Your task to perform on an android device: toggle notification dots Image 0: 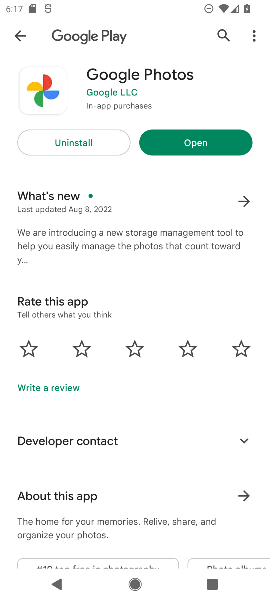
Step 0: press home button
Your task to perform on an android device: toggle notification dots Image 1: 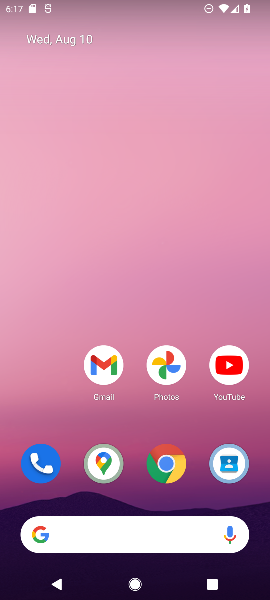
Step 1: drag from (137, 500) to (101, 100)
Your task to perform on an android device: toggle notification dots Image 2: 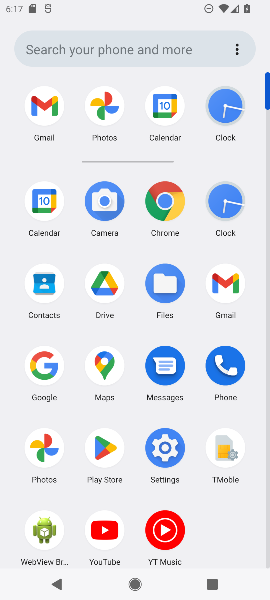
Step 2: click (164, 448)
Your task to perform on an android device: toggle notification dots Image 3: 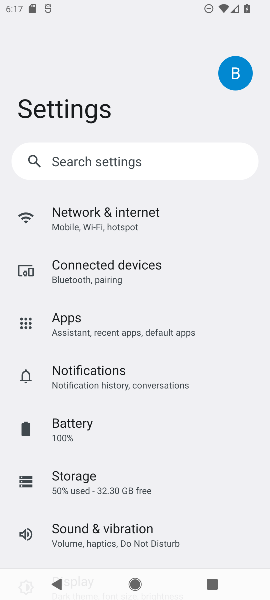
Step 3: click (78, 374)
Your task to perform on an android device: toggle notification dots Image 4: 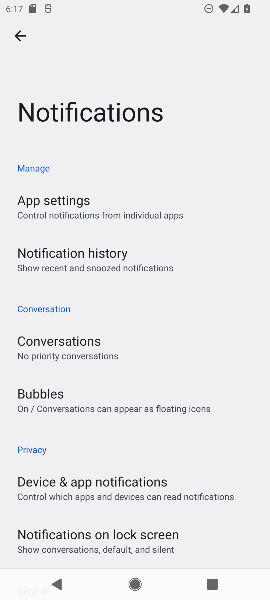
Step 4: drag from (102, 449) to (127, 229)
Your task to perform on an android device: toggle notification dots Image 5: 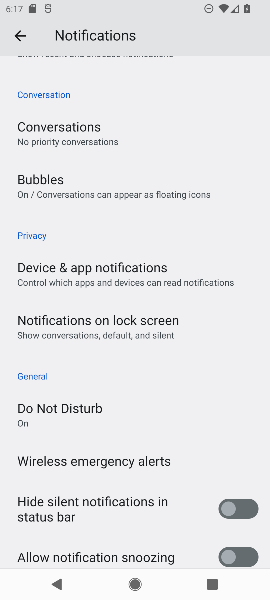
Step 5: drag from (171, 414) to (140, 197)
Your task to perform on an android device: toggle notification dots Image 6: 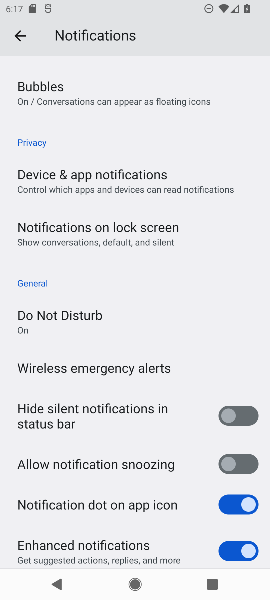
Step 6: click (234, 501)
Your task to perform on an android device: toggle notification dots Image 7: 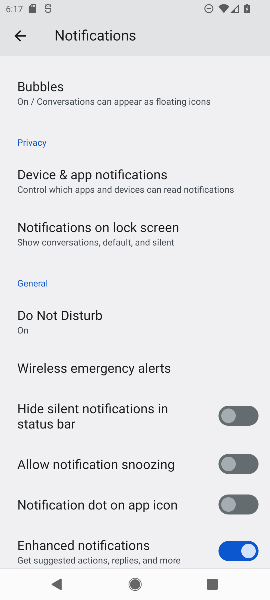
Step 7: task complete